Your task to perform on an android device: turn on javascript in the chrome app Image 0: 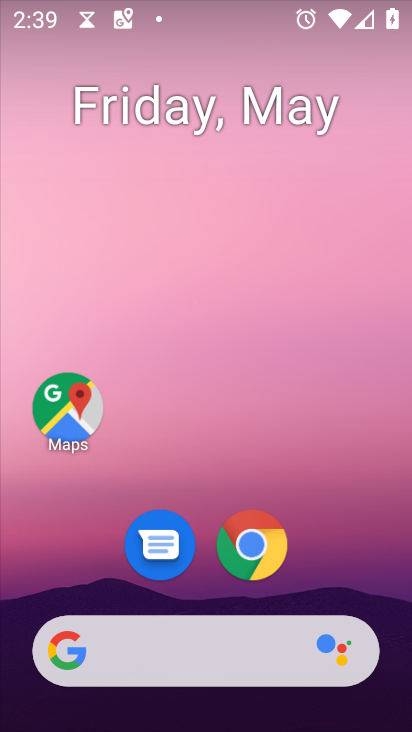
Step 0: click (253, 553)
Your task to perform on an android device: turn on javascript in the chrome app Image 1: 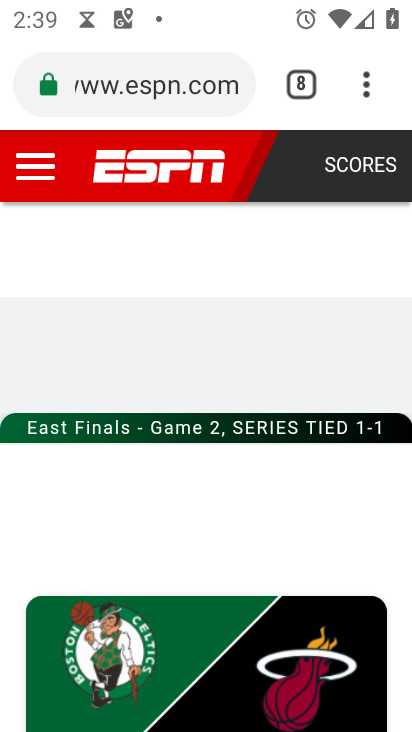
Step 1: click (373, 85)
Your task to perform on an android device: turn on javascript in the chrome app Image 2: 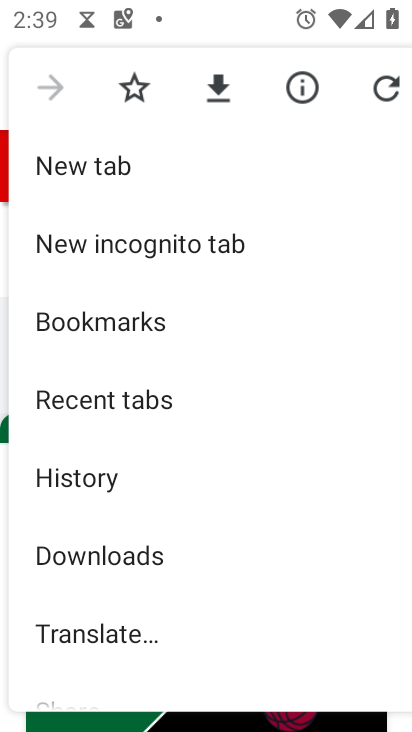
Step 2: drag from (232, 589) to (225, 279)
Your task to perform on an android device: turn on javascript in the chrome app Image 3: 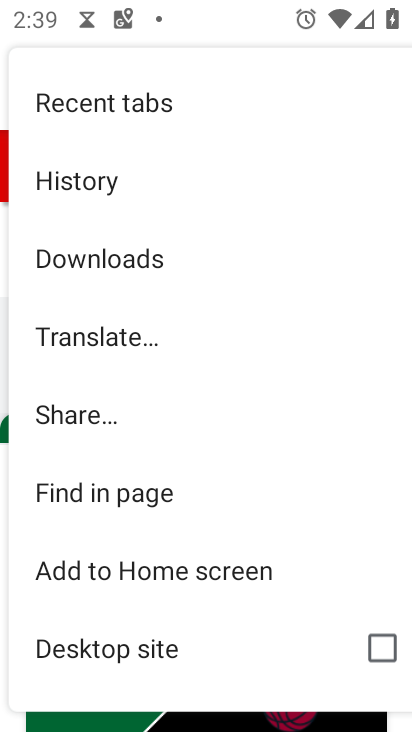
Step 3: drag from (214, 621) to (212, 355)
Your task to perform on an android device: turn on javascript in the chrome app Image 4: 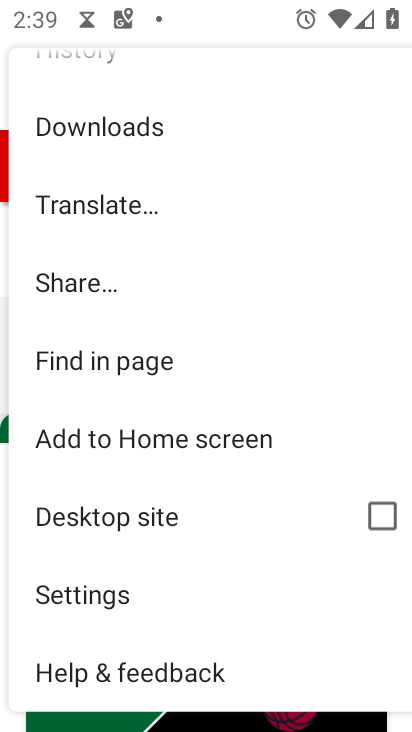
Step 4: click (99, 588)
Your task to perform on an android device: turn on javascript in the chrome app Image 5: 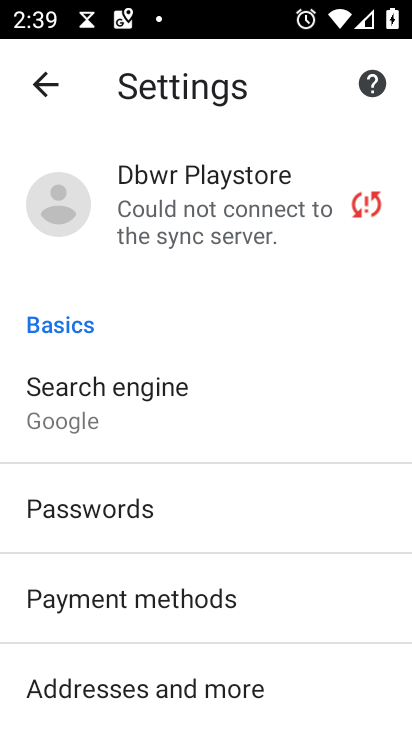
Step 5: drag from (319, 628) to (256, 221)
Your task to perform on an android device: turn on javascript in the chrome app Image 6: 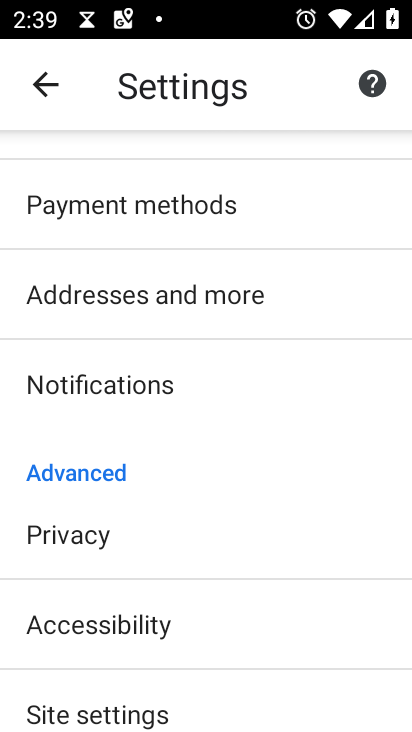
Step 6: click (144, 712)
Your task to perform on an android device: turn on javascript in the chrome app Image 7: 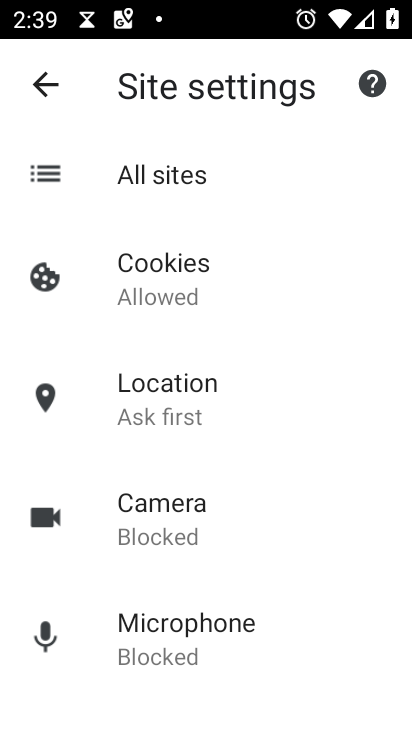
Step 7: drag from (312, 590) to (309, 254)
Your task to perform on an android device: turn on javascript in the chrome app Image 8: 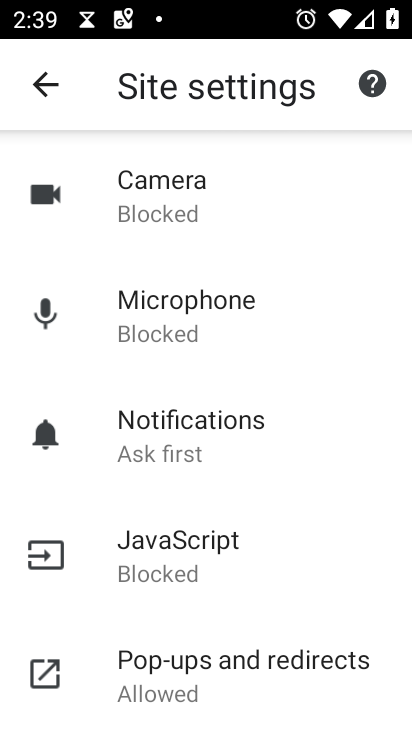
Step 8: click (209, 537)
Your task to perform on an android device: turn on javascript in the chrome app Image 9: 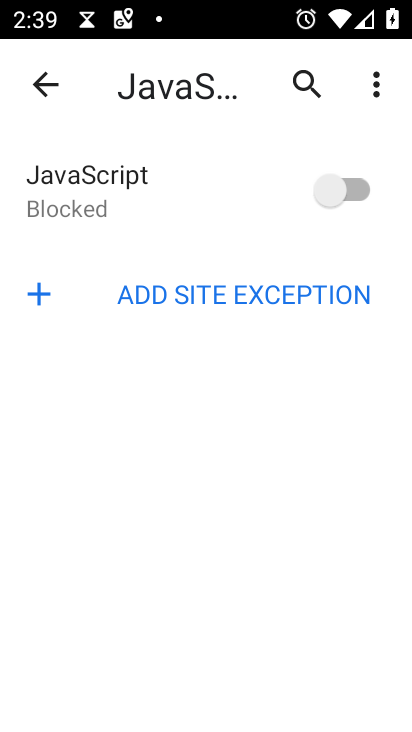
Step 9: click (365, 187)
Your task to perform on an android device: turn on javascript in the chrome app Image 10: 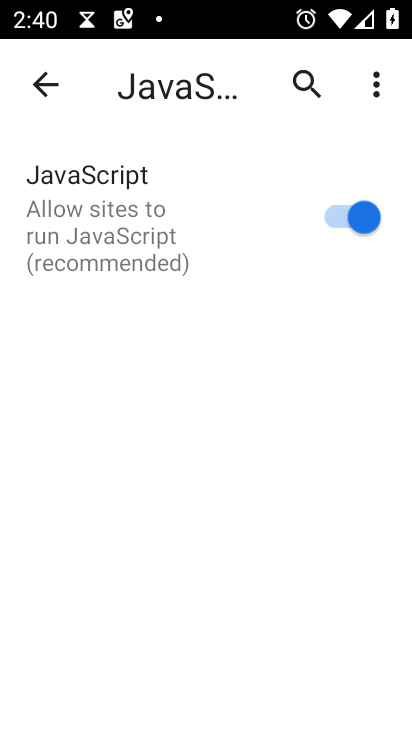
Step 10: task complete